Your task to perform on an android device: toggle priority inbox in the gmail app Image 0: 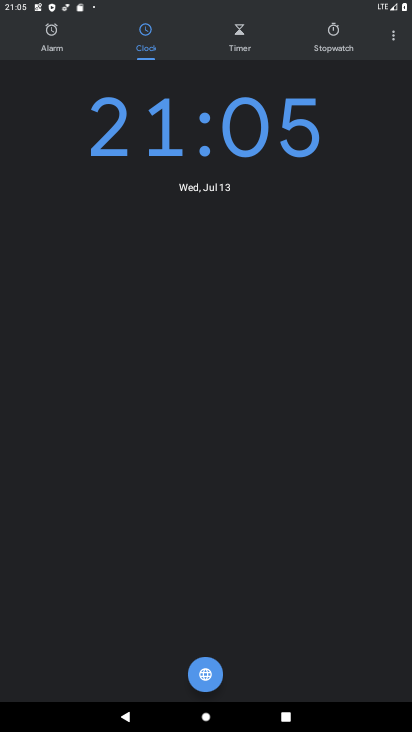
Step 0: press home button
Your task to perform on an android device: toggle priority inbox in the gmail app Image 1: 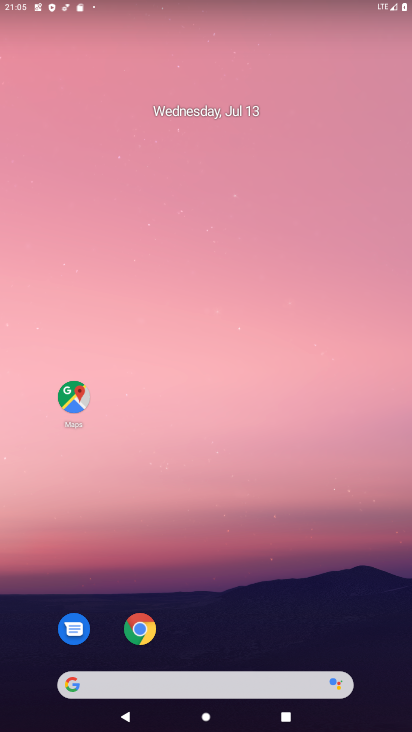
Step 1: drag from (215, 634) to (187, 202)
Your task to perform on an android device: toggle priority inbox in the gmail app Image 2: 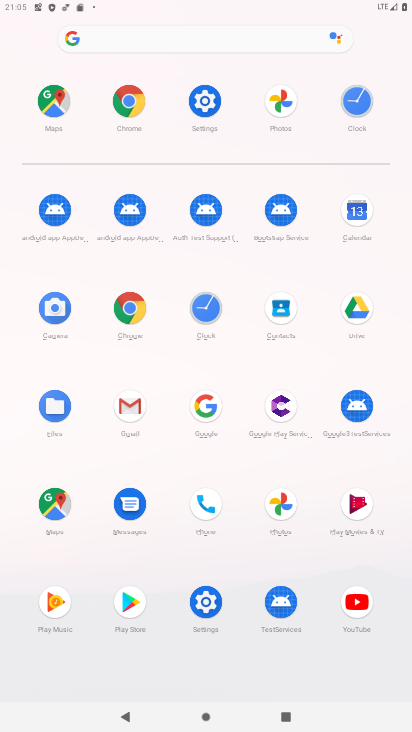
Step 2: click (121, 401)
Your task to perform on an android device: toggle priority inbox in the gmail app Image 3: 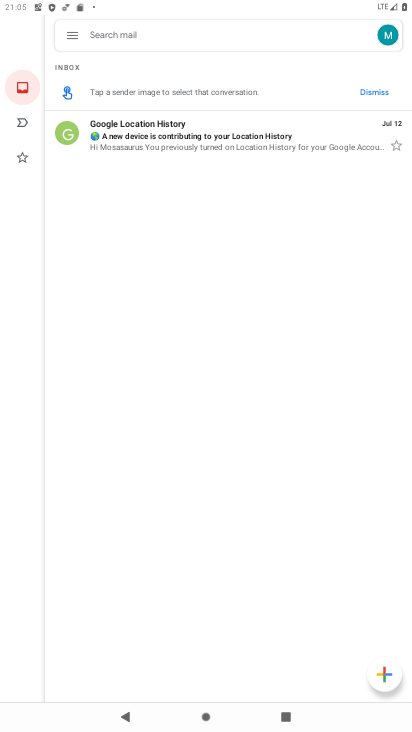
Step 3: click (67, 36)
Your task to perform on an android device: toggle priority inbox in the gmail app Image 4: 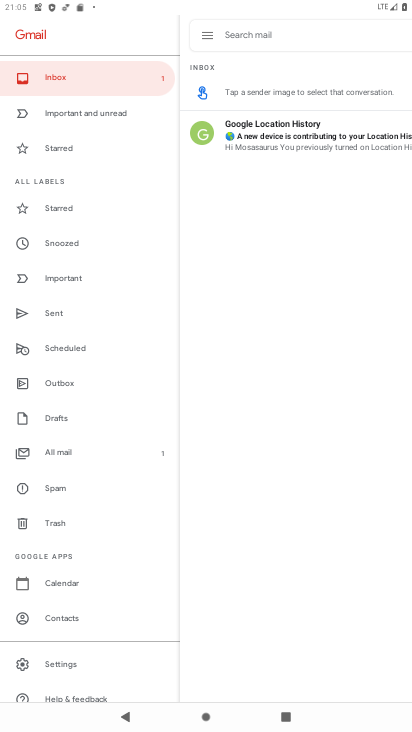
Step 4: click (74, 662)
Your task to perform on an android device: toggle priority inbox in the gmail app Image 5: 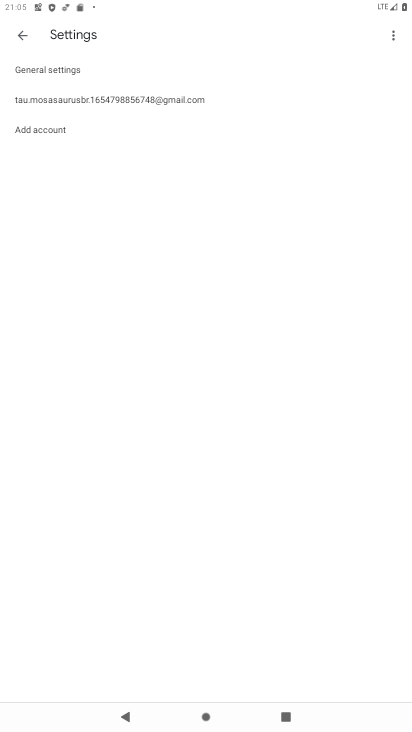
Step 5: click (157, 95)
Your task to perform on an android device: toggle priority inbox in the gmail app Image 6: 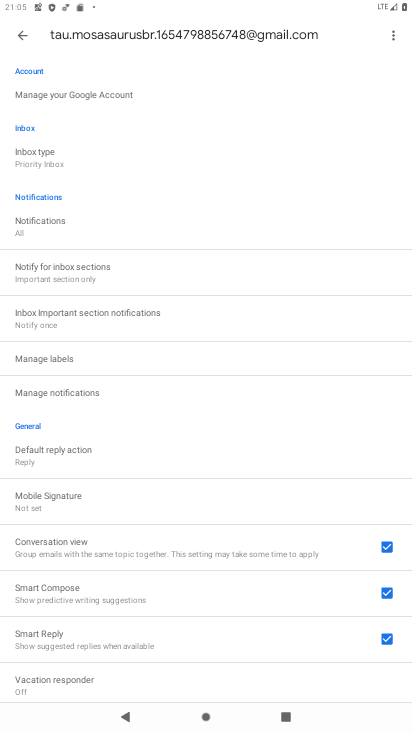
Step 6: click (44, 155)
Your task to perform on an android device: toggle priority inbox in the gmail app Image 7: 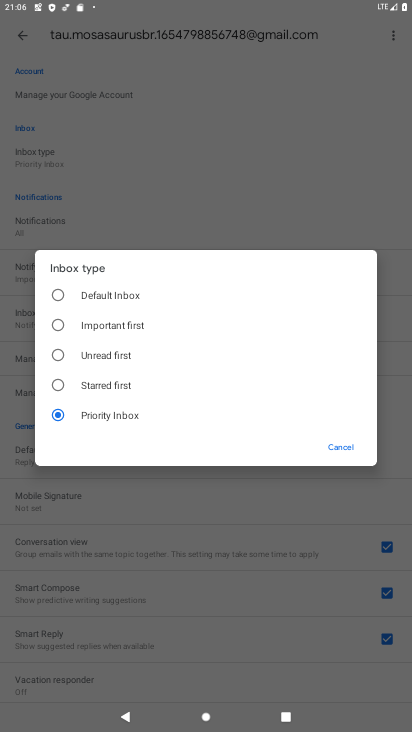
Step 7: click (73, 411)
Your task to perform on an android device: toggle priority inbox in the gmail app Image 8: 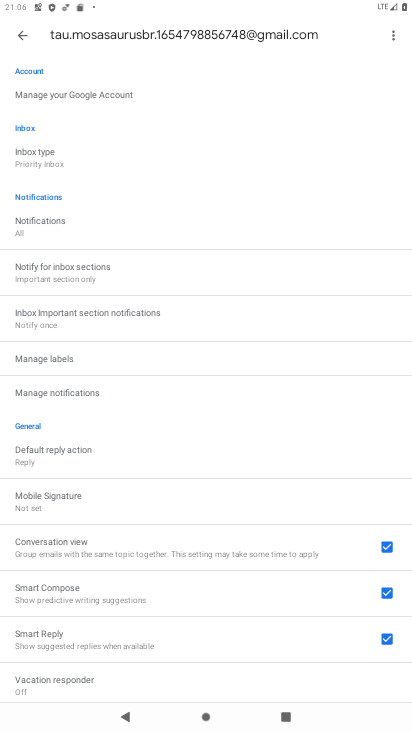
Step 8: task complete